Your task to perform on an android device: check android version Image 0: 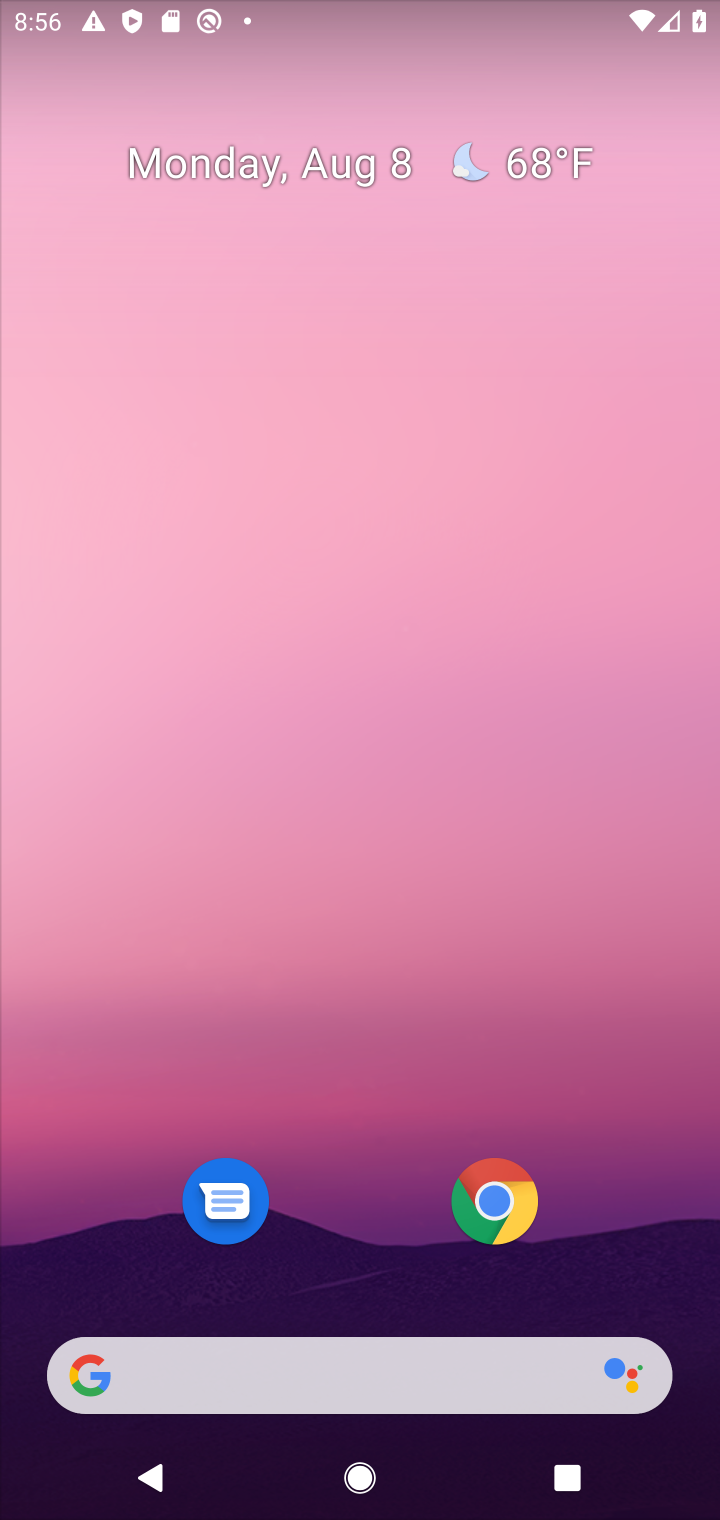
Step 0: press home button
Your task to perform on an android device: check android version Image 1: 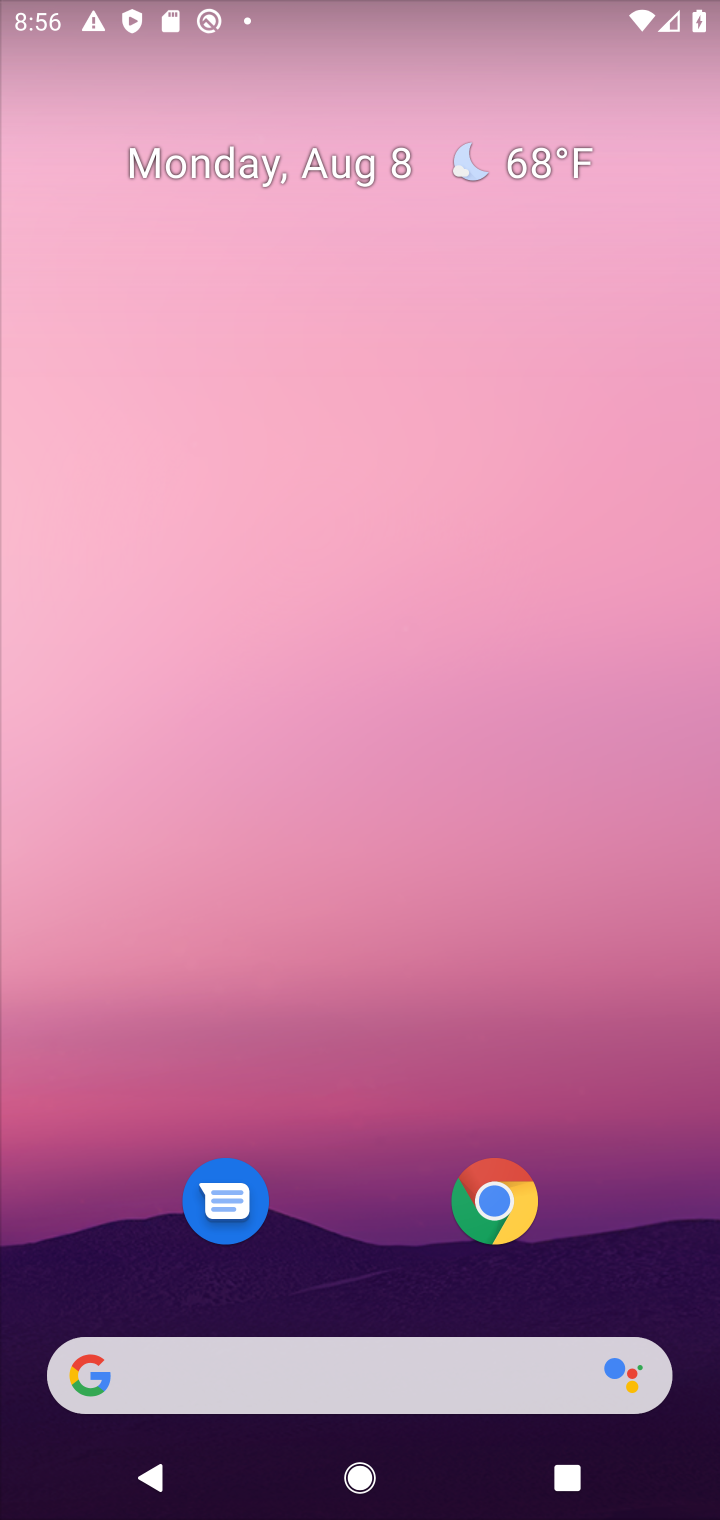
Step 1: drag from (391, 1193) to (426, 152)
Your task to perform on an android device: check android version Image 2: 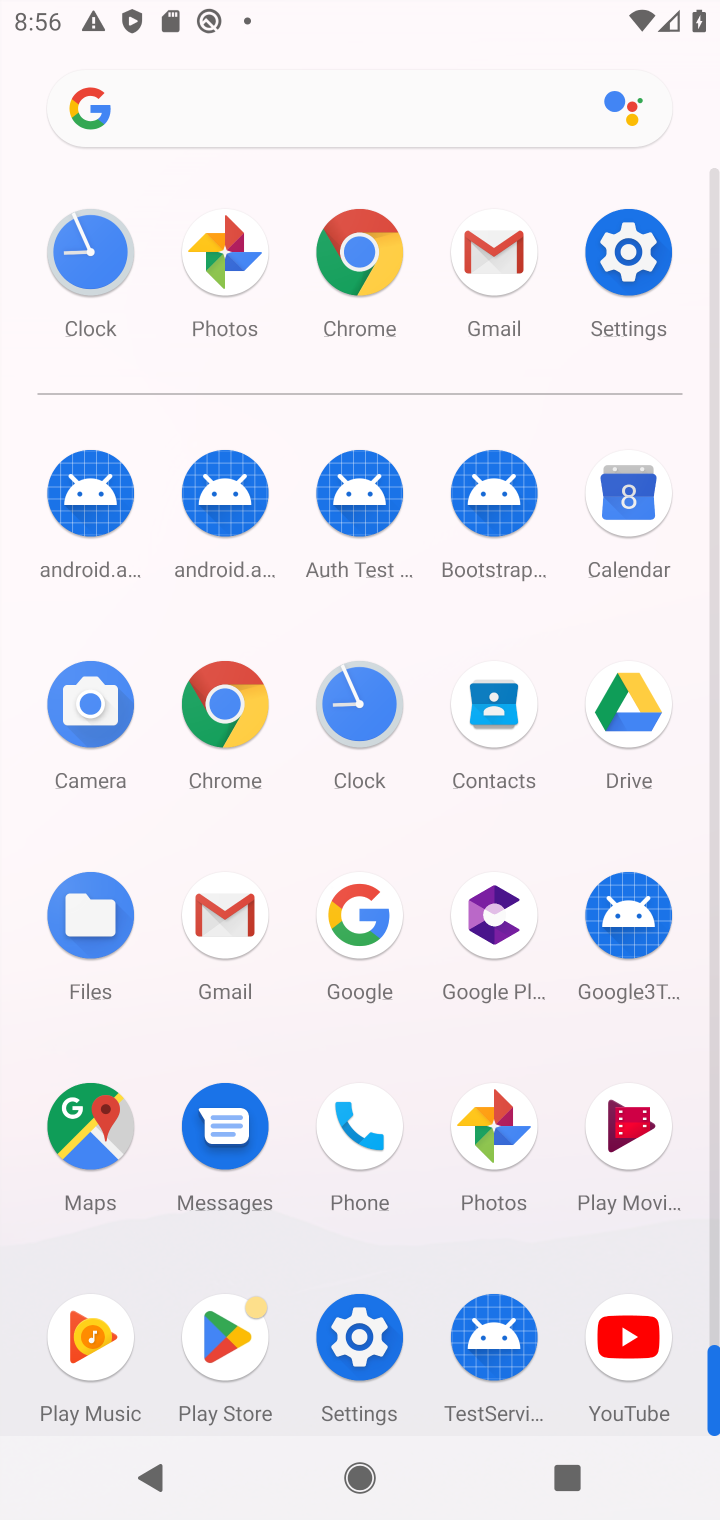
Step 2: click (634, 258)
Your task to perform on an android device: check android version Image 3: 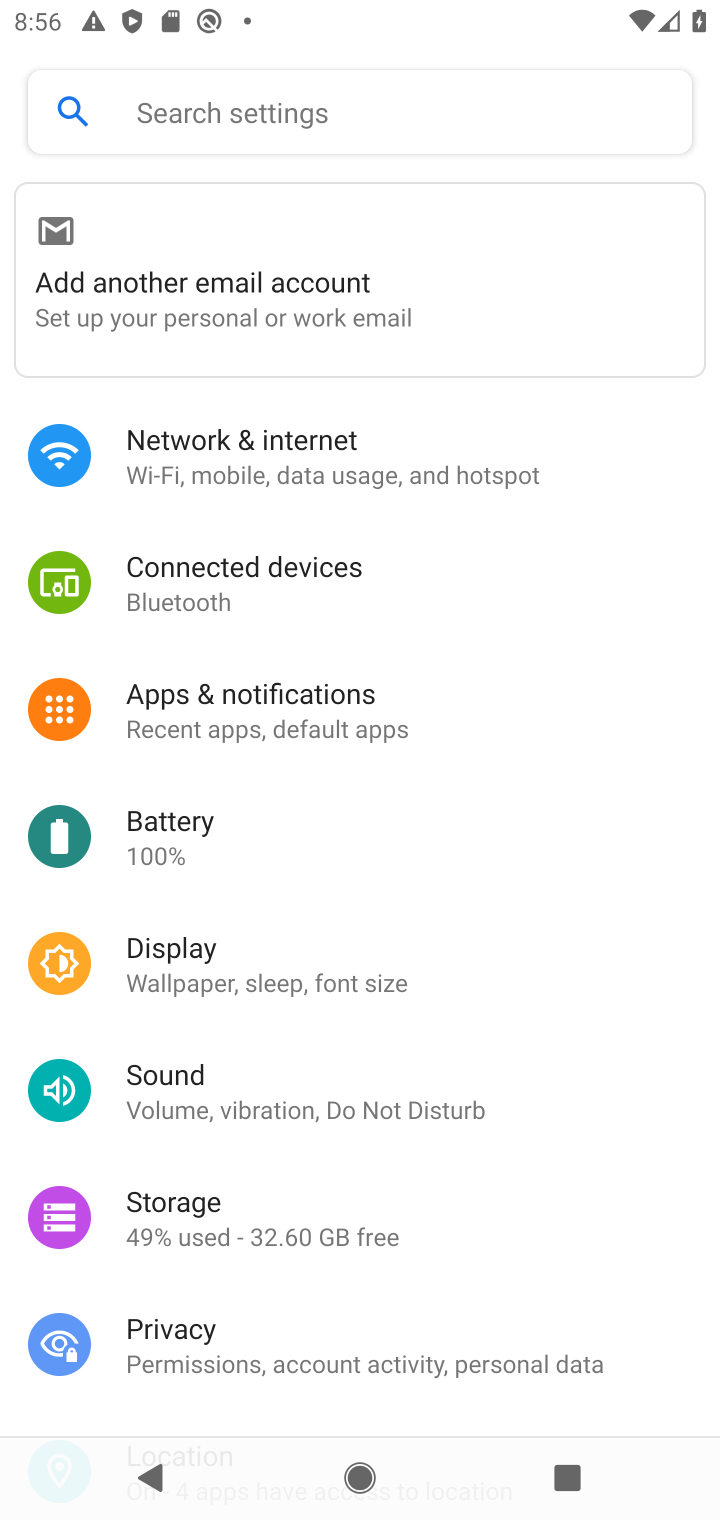
Step 3: drag from (556, 976) to (549, 585)
Your task to perform on an android device: check android version Image 4: 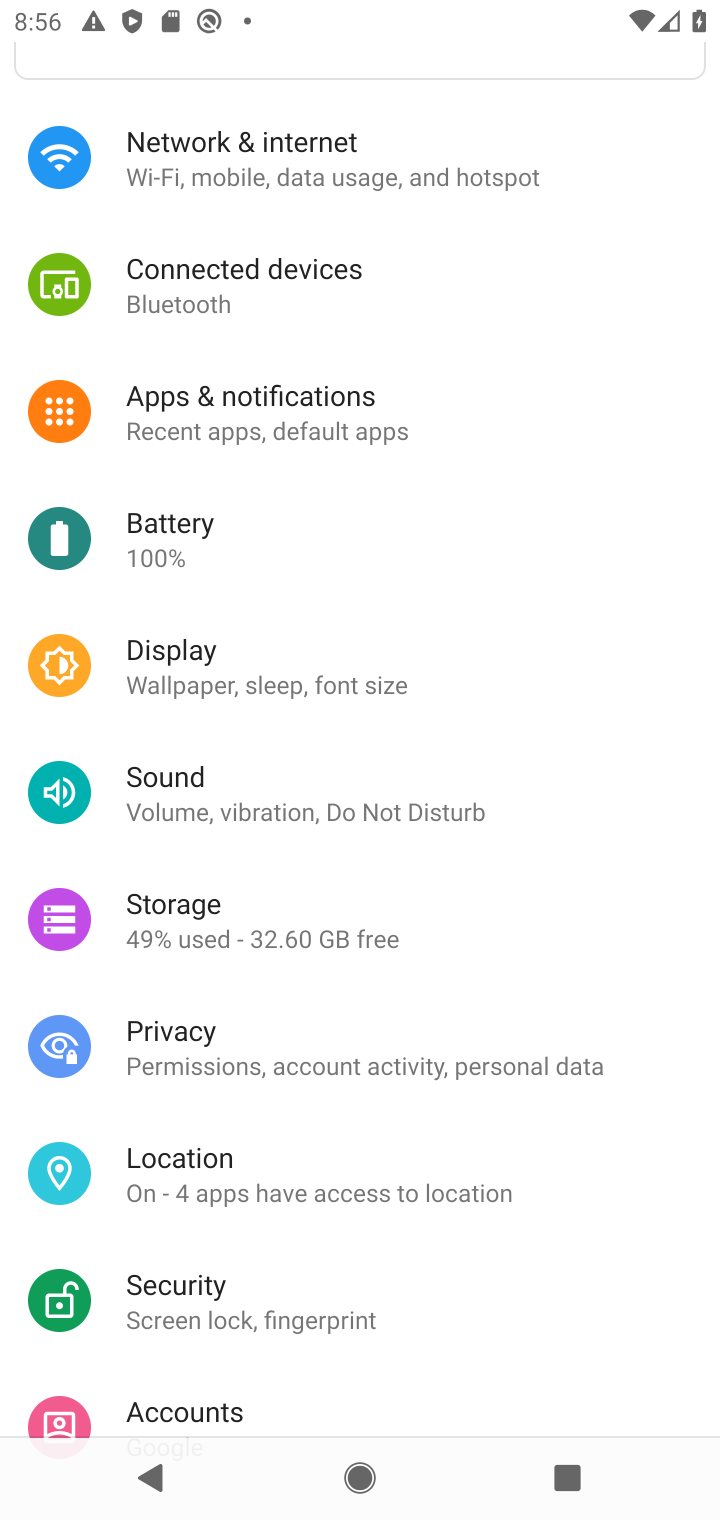
Step 4: drag from (589, 855) to (616, 576)
Your task to perform on an android device: check android version Image 5: 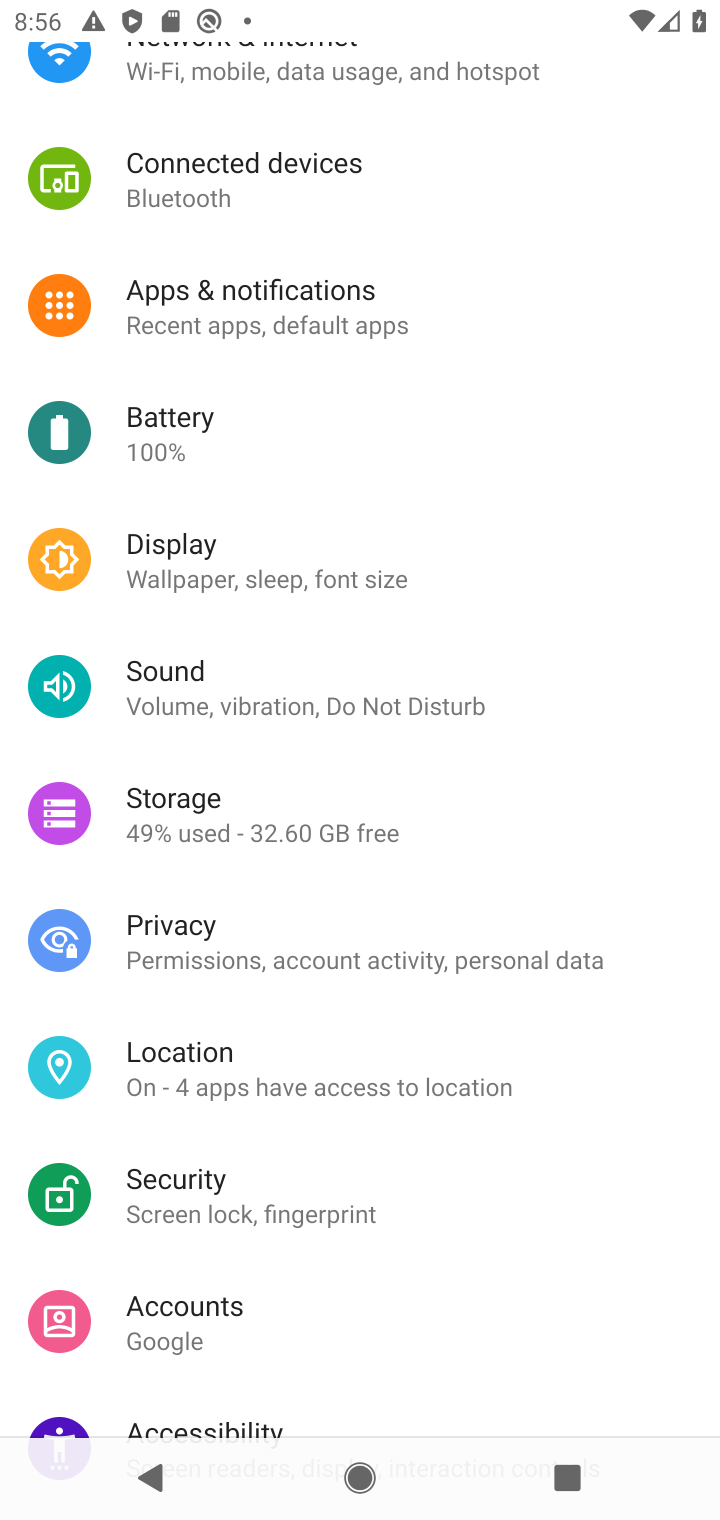
Step 5: drag from (621, 1073) to (634, 655)
Your task to perform on an android device: check android version Image 6: 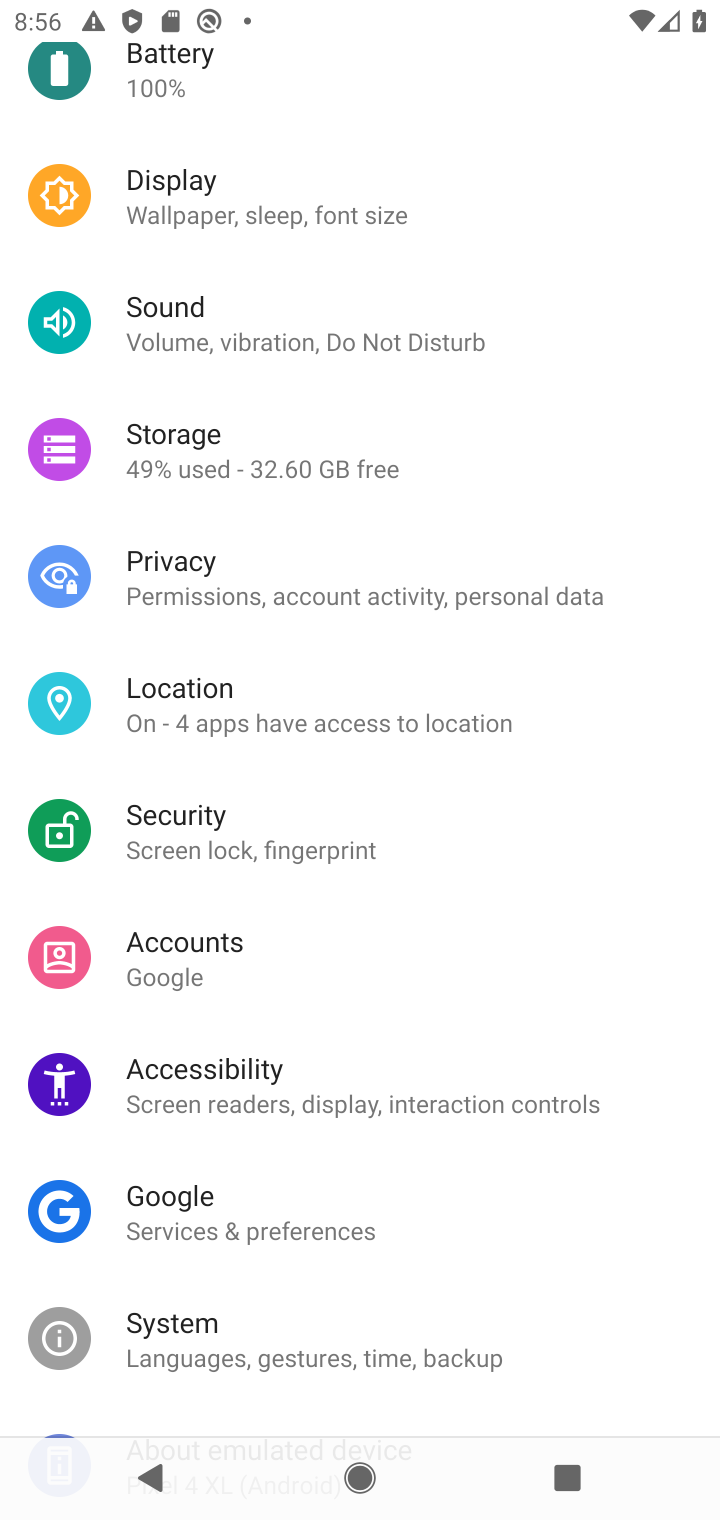
Step 6: drag from (647, 470) to (647, 851)
Your task to perform on an android device: check android version Image 7: 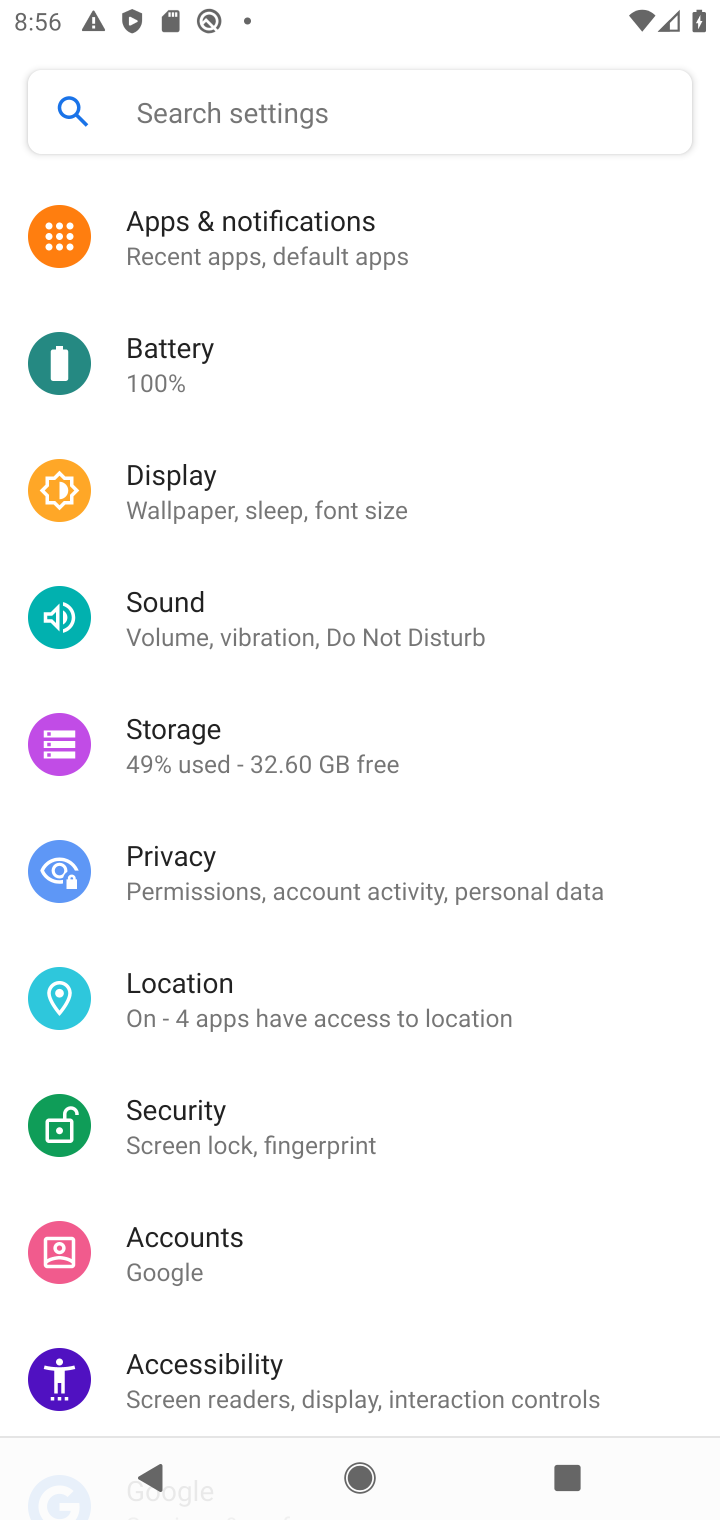
Step 7: drag from (641, 349) to (639, 746)
Your task to perform on an android device: check android version Image 8: 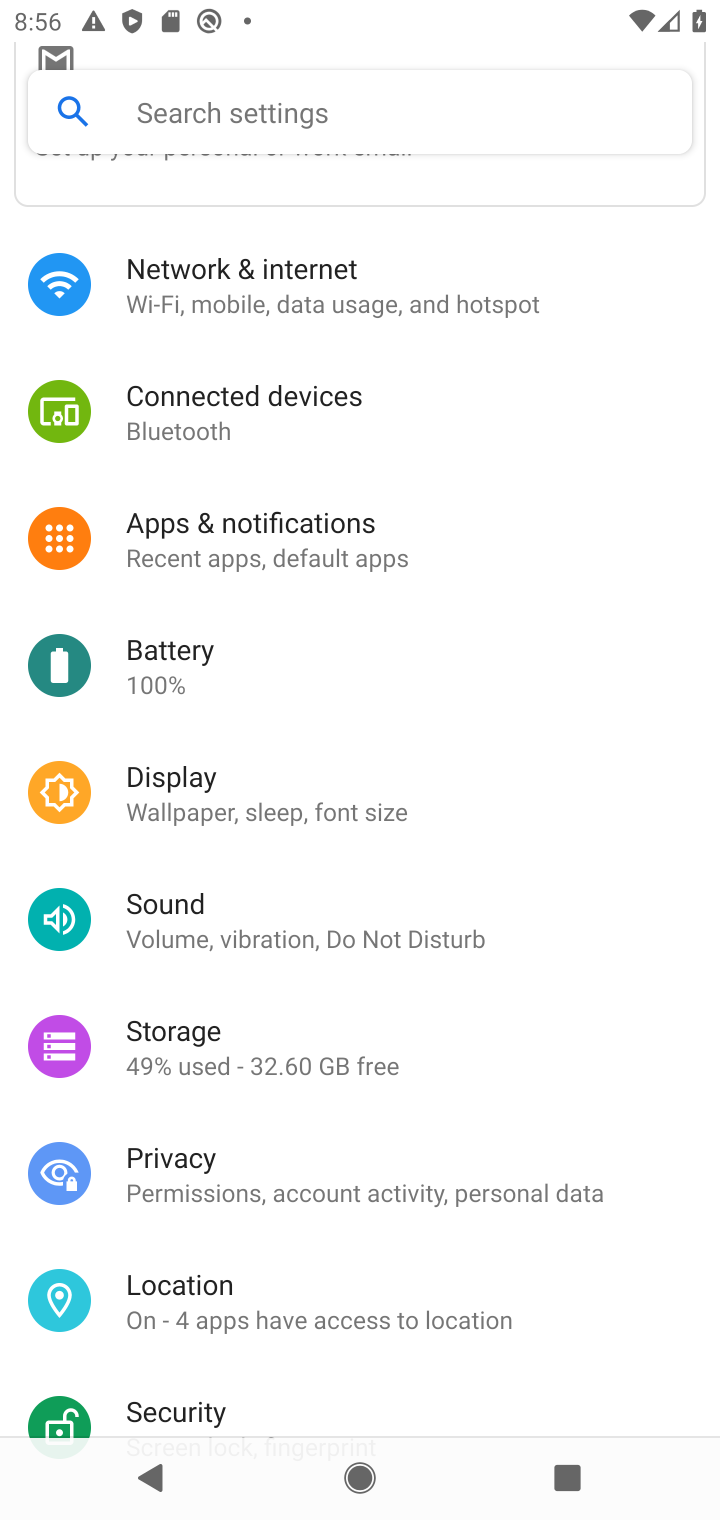
Step 8: drag from (610, 391) to (632, 793)
Your task to perform on an android device: check android version Image 9: 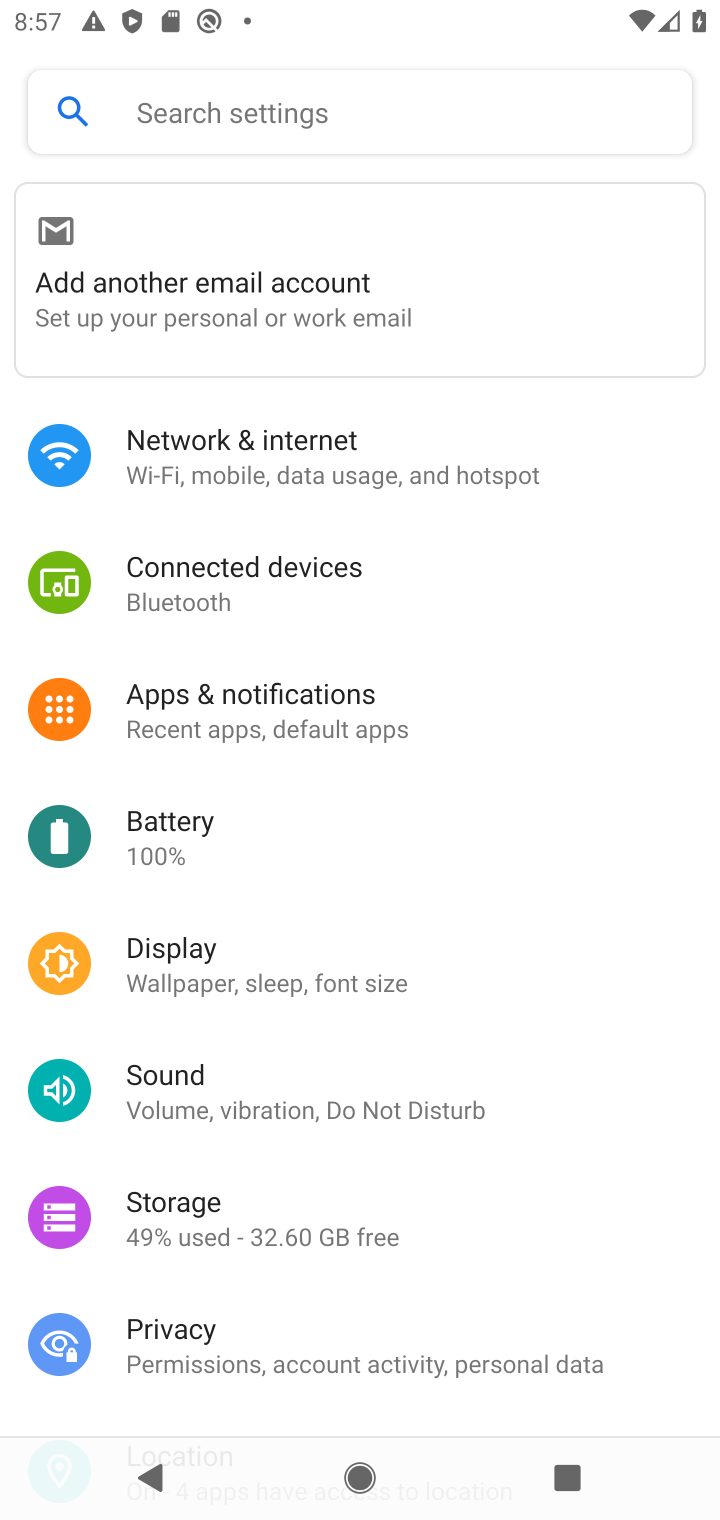
Step 9: drag from (603, 875) to (609, 617)
Your task to perform on an android device: check android version Image 10: 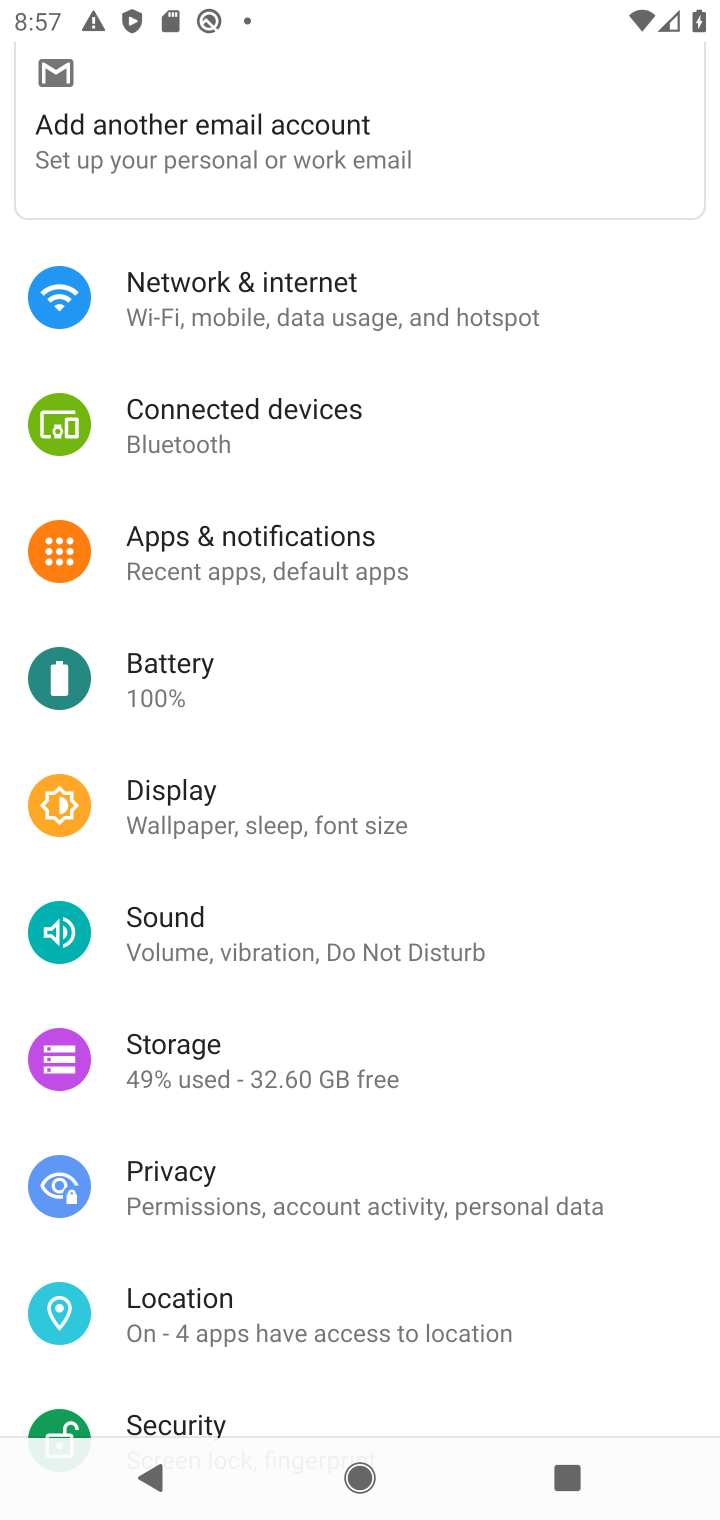
Step 10: drag from (587, 909) to (619, 759)
Your task to perform on an android device: check android version Image 11: 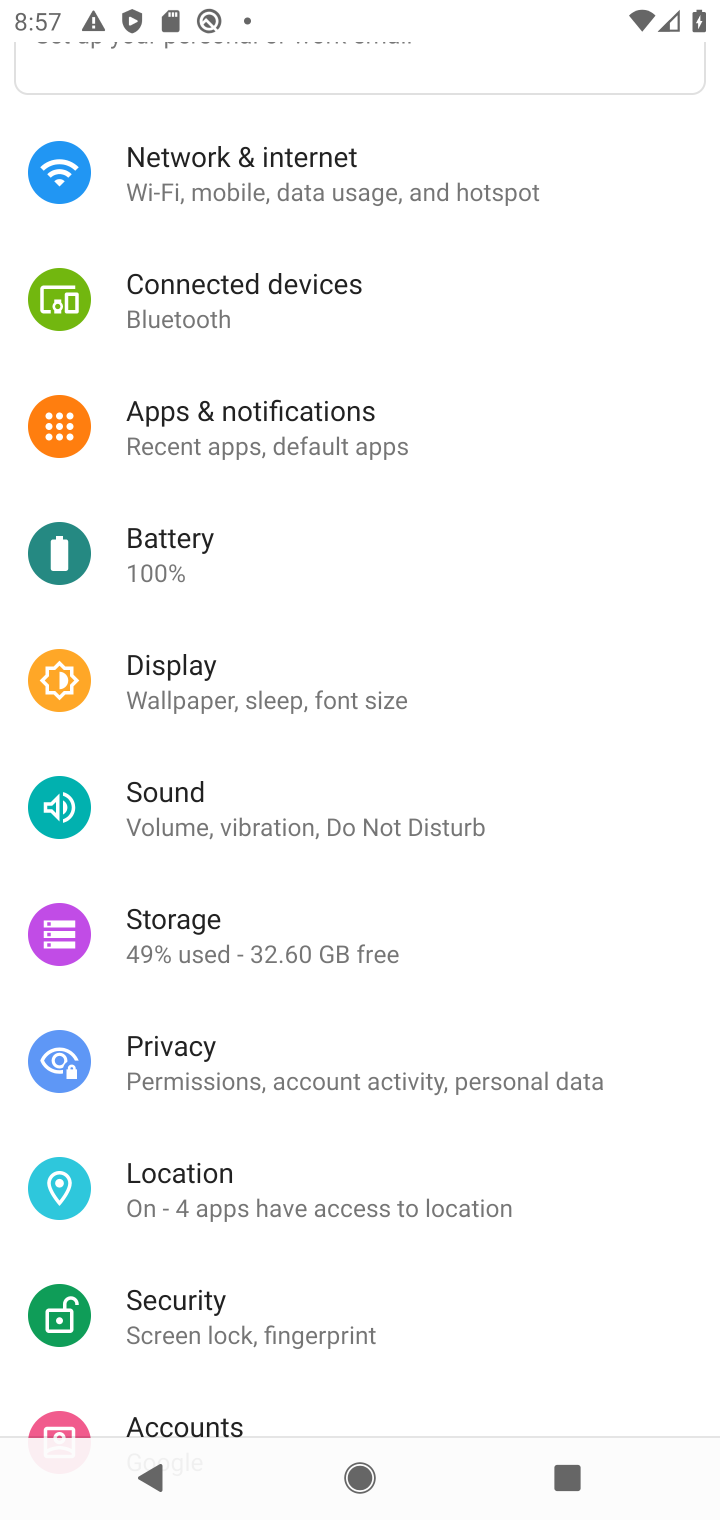
Step 11: drag from (617, 1116) to (641, 604)
Your task to perform on an android device: check android version Image 12: 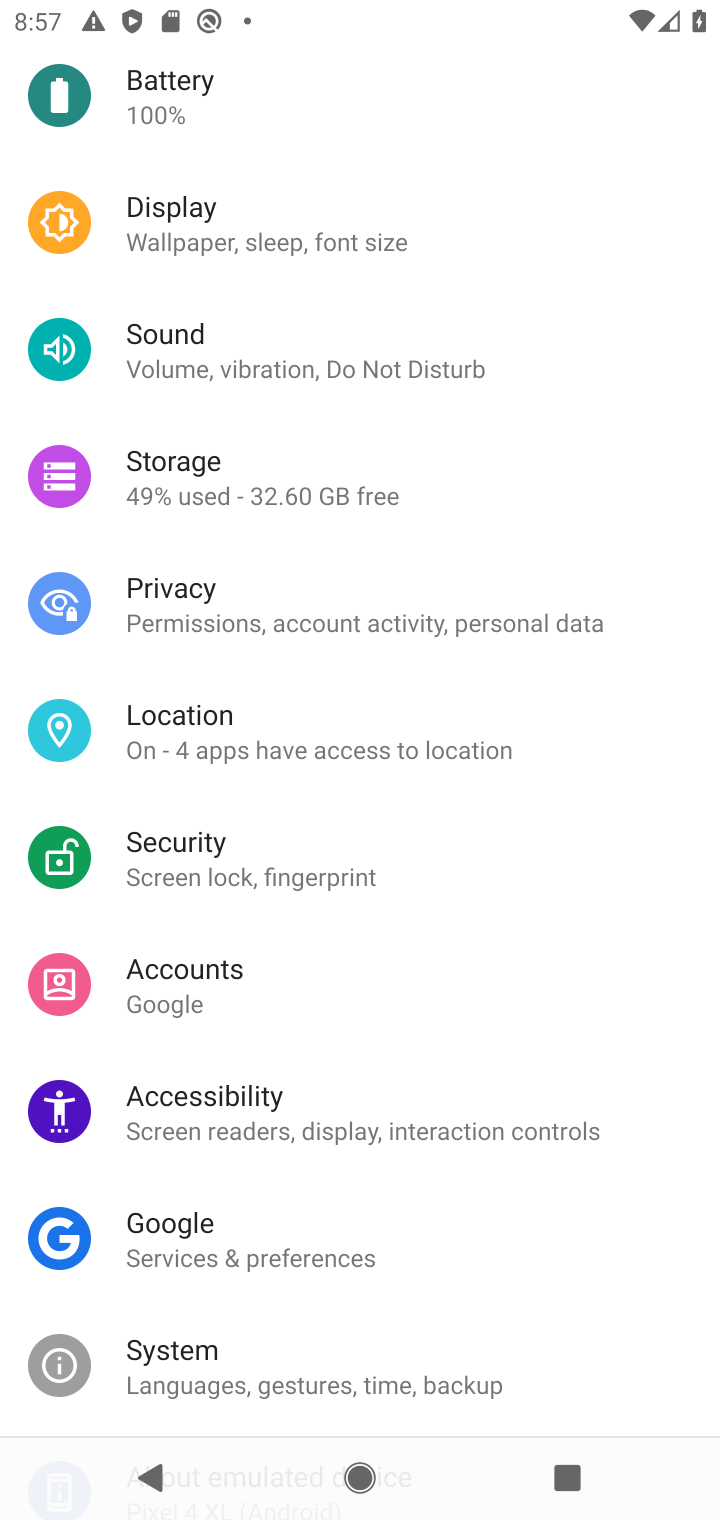
Step 12: drag from (568, 979) to (604, 541)
Your task to perform on an android device: check android version Image 13: 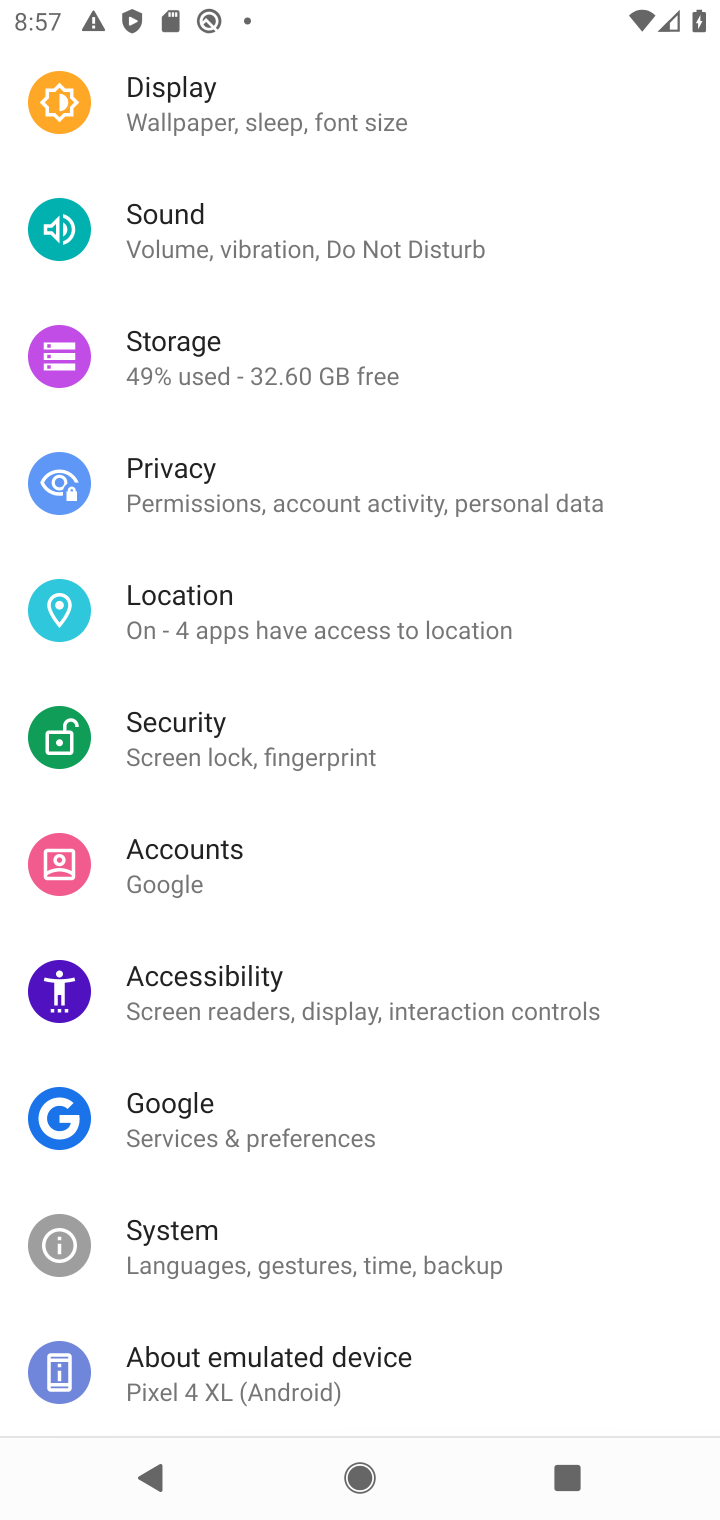
Step 13: drag from (596, 1203) to (620, 731)
Your task to perform on an android device: check android version Image 14: 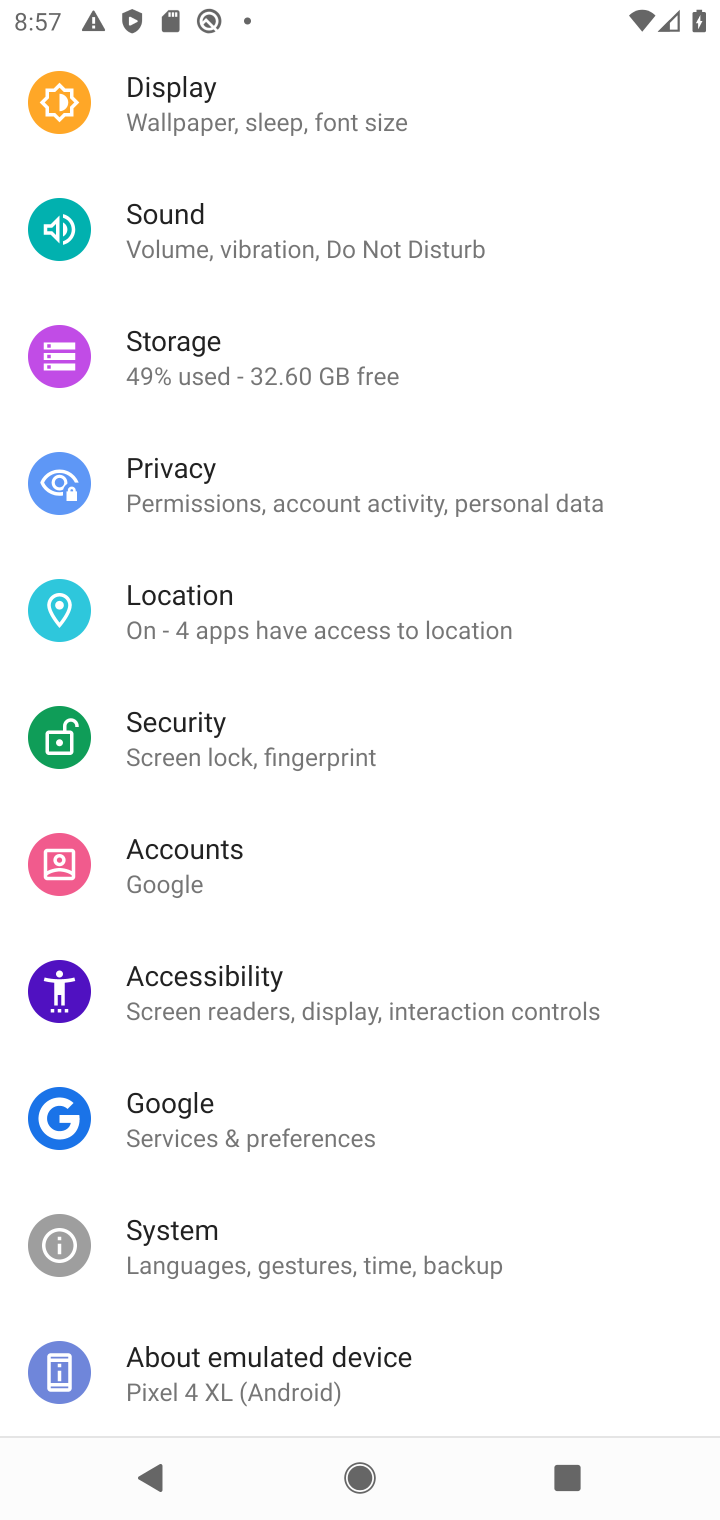
Step 14: click (361, 1253)
Your task to perform on an android device: check android version Image 15: 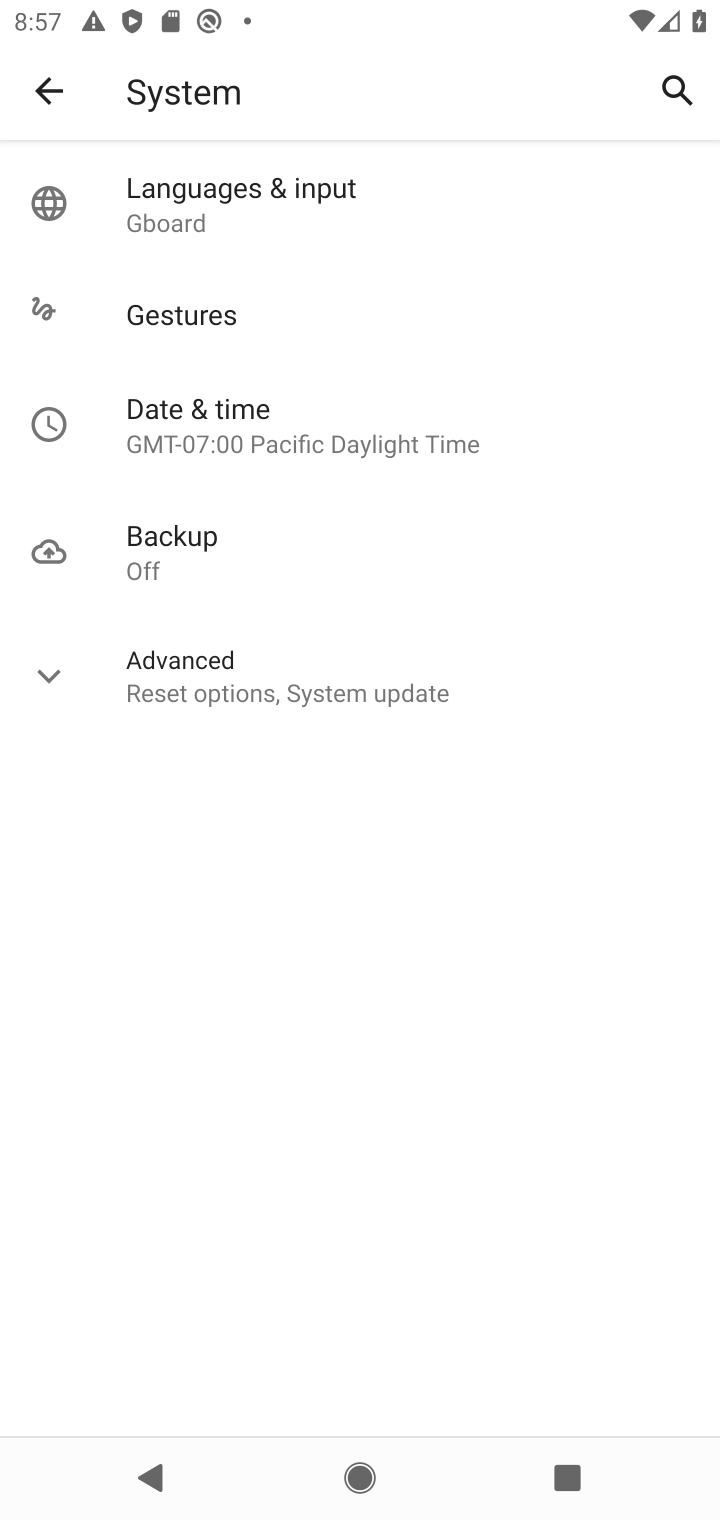
Step 15: click (335, 676)
Your task to perform on an android device: check android version Image 16: 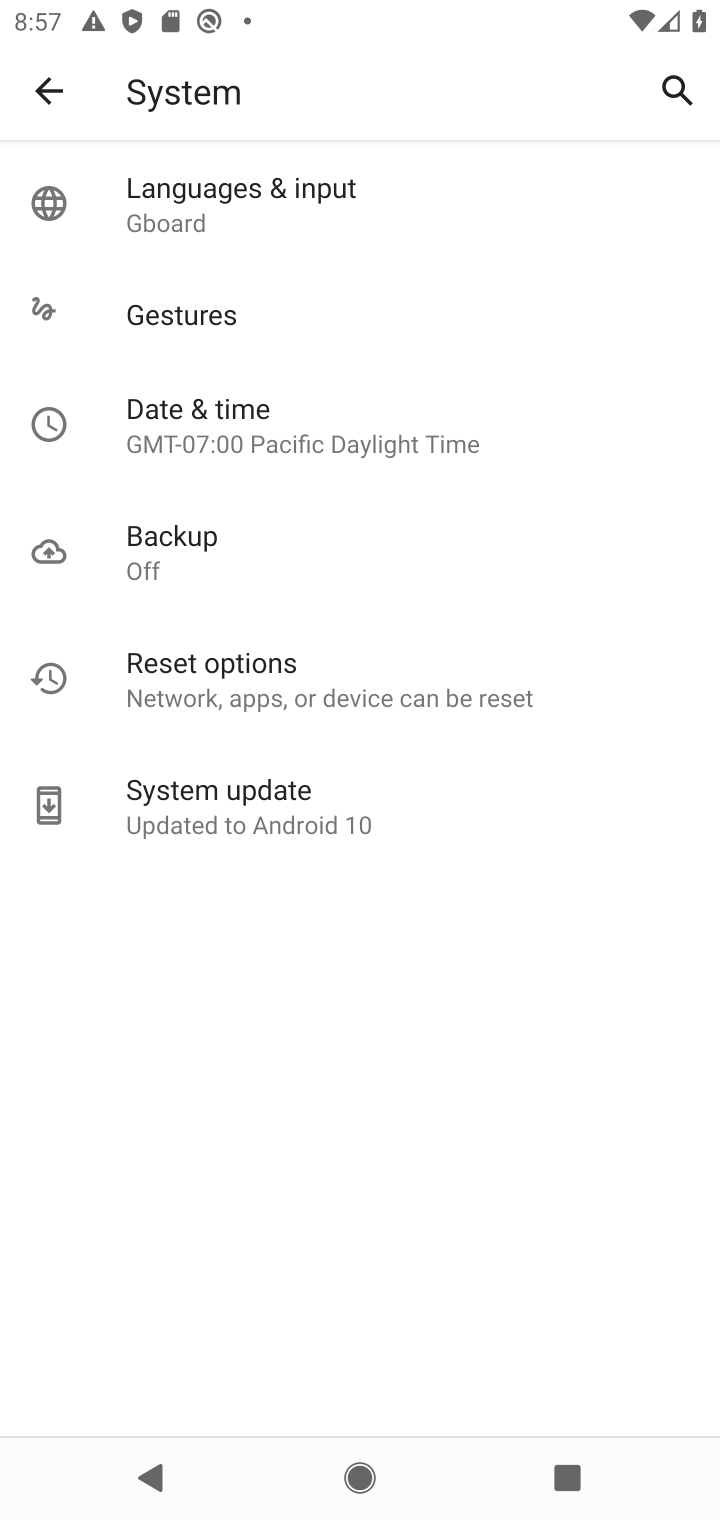
Step 16: task complete